Your task to perform on an android device: turn off javascript in the chrome app Image 0: 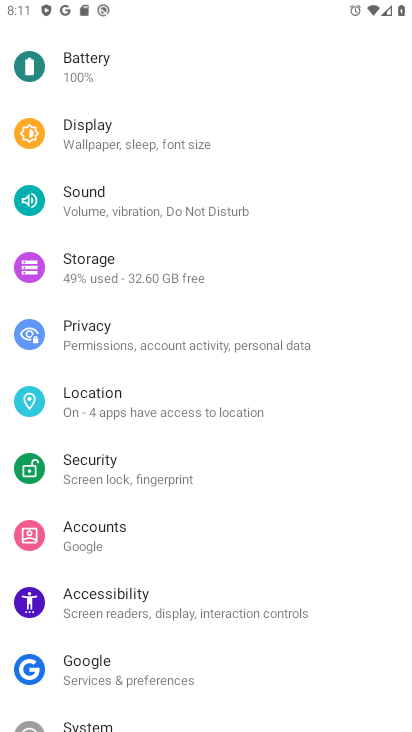
Step 0: press home button
Your task to perform on an android device: turn off javascript in the chrome app Image 1: 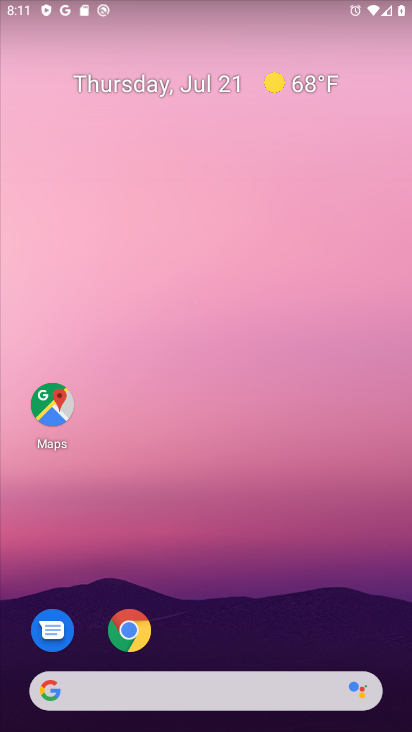
Step 1: drag from (246, 622) to (198, 15)
Your task to perform on an android device: turn off javascript in the chrome app Image 2: 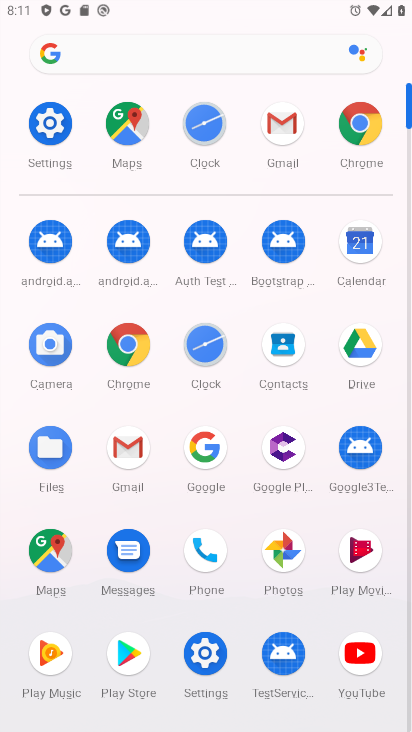
Step 2: click (371, 123)
Your task to perform on an android device: turn off javascript in the chrome app Image 3: 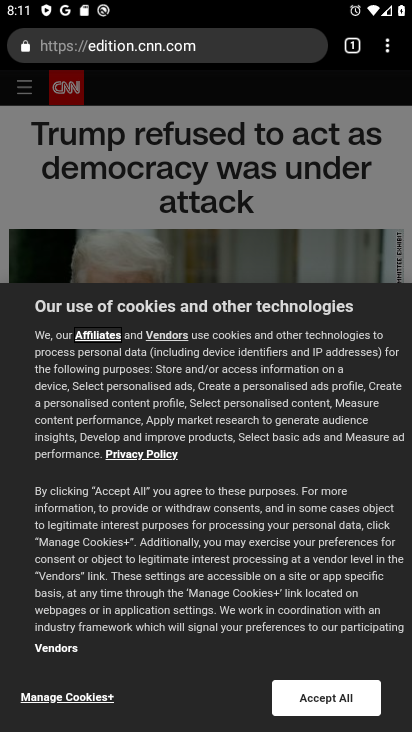
Step 3: drag from (390, 51) to (242, 521)
Your task to perform on an android device: turn off javascript in the chrome app Image 4: 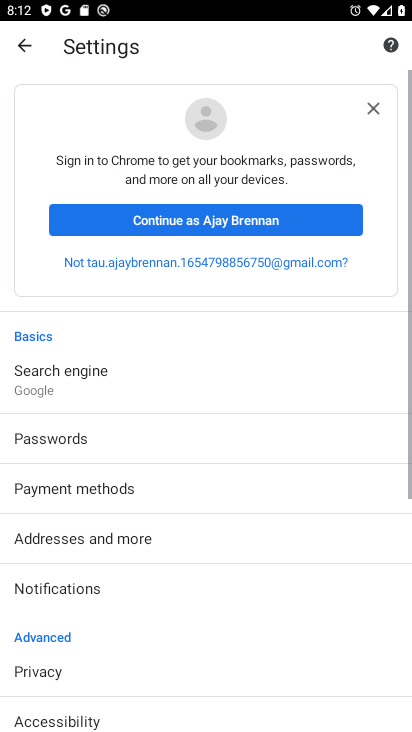
Step 4: drag from (265, 575) to (188, 23)
Your task to perform on an android device: turn off javascript in the chrome app Image 5: 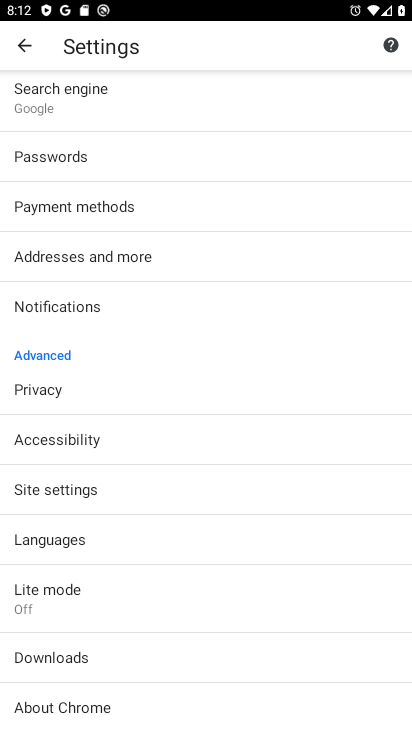
Step 5: click (97, 490)
Your task to perform on an android device: turn off javascript in the chrome app Image 6: 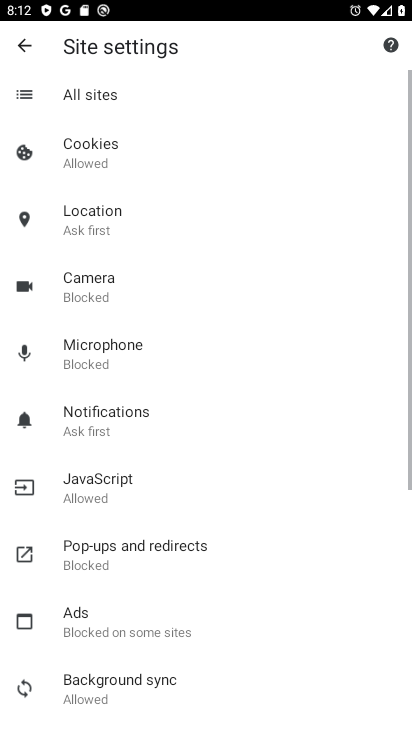
Step 6: click (97, 490)
Your task to perform on an android device: turn off javascript in the chrome app Image 7: 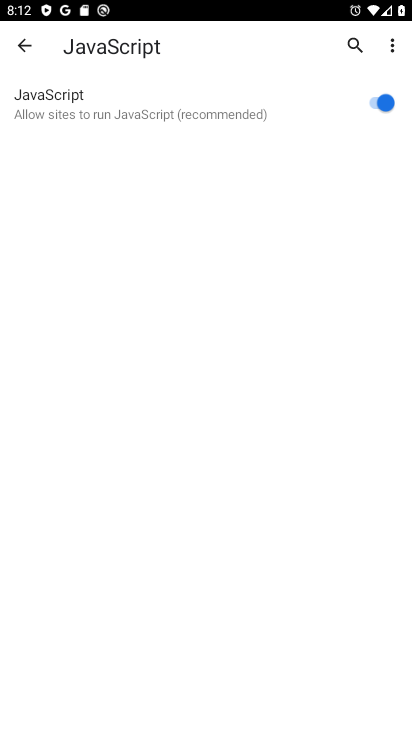
Step 7: click (387, 101)
Your task to perform on an android device: turn off javascript in the chrome app Image 8: 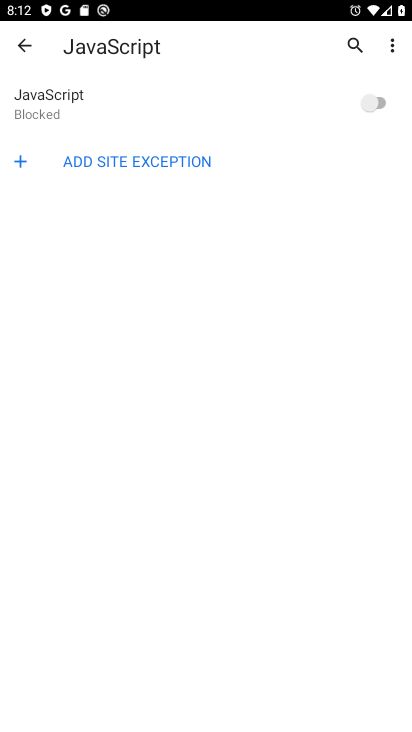
Step 8: task complete